Your task to perform on an android device: toggle sleep mode Image 0: 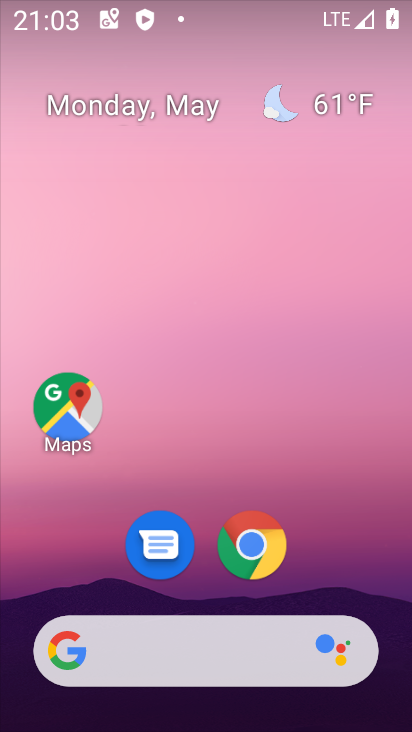
Step 0: drag from (200, 630) to (102, 3)
Your task to perform on an android device: toggle sleep mode Image 1: 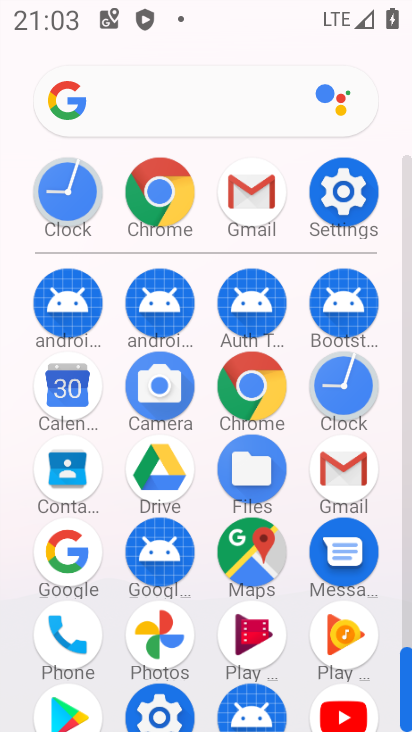
Step 1: click (359, 181)
Your task to perform on an android device: toggle sleep mode Image 2: 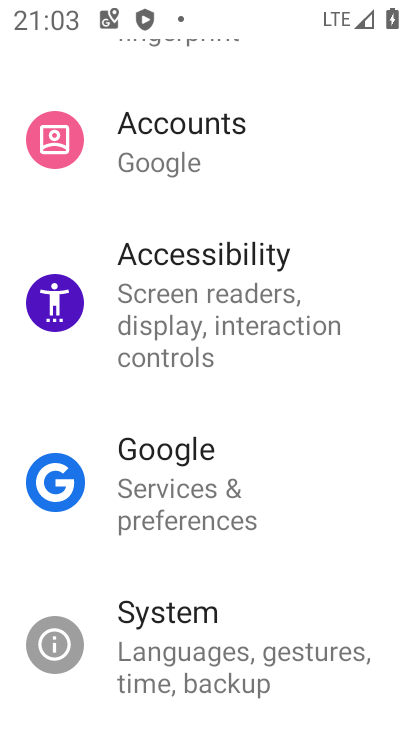
Step 2: drag from (165, 590) to (160, 121)
Your task to perform on an android device: toggle sleep mode Image 3: 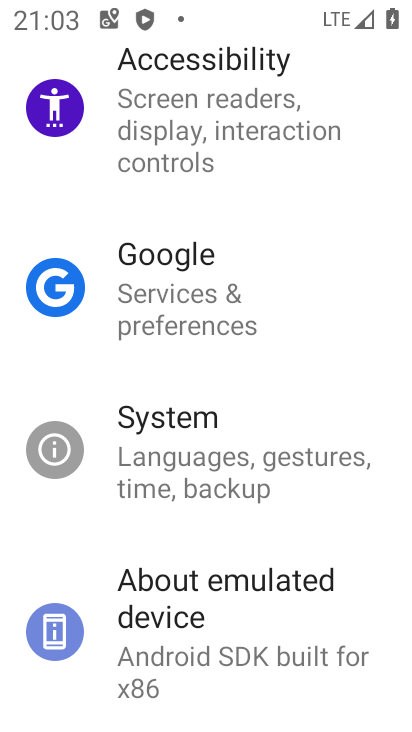
Step 3: drag from (153, 194) to (122, 719)
Your task to perform on an android device: toggle sleep mode Image 4: 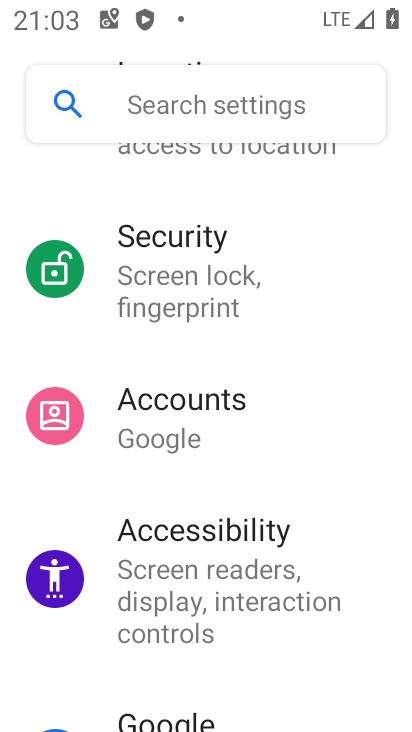
Step 4: drag from (169, 327) to (130, 713)
Your task to perform on an android device: toggle sleep mode Image 5: 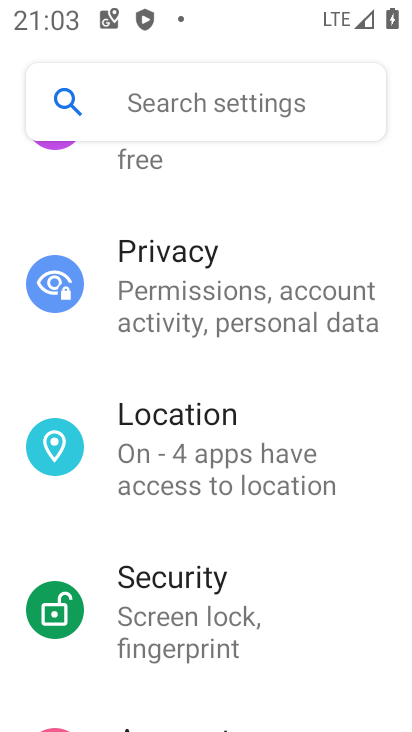
Step 5: drag from (210, 224) to (162, 719)
Your task to perform on an android device: toggle sleep mode Image 6: 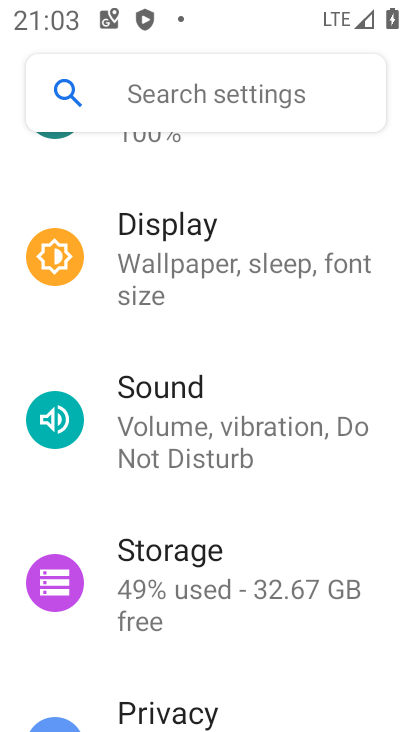
Step 6: drag from (178, 325) to (224, 479)
Your task to perform on an android device: toggle sleep mode Image 7: 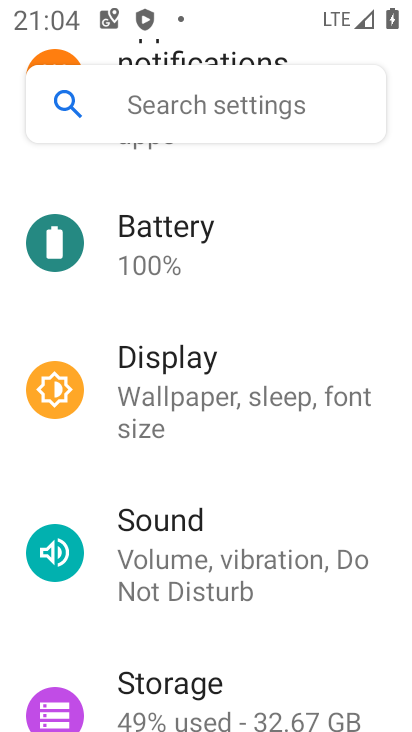
Step 7: click (169, 361)
Your task to perform on an android device: toggle sleep mode Image 8: 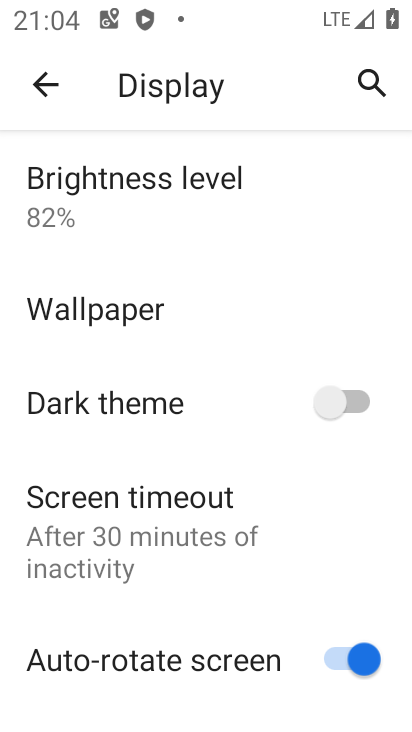
Step 8: drag from (198, 557) to (169, 118)
Your task to perform on an android device: toggle sleep mode Image 9: 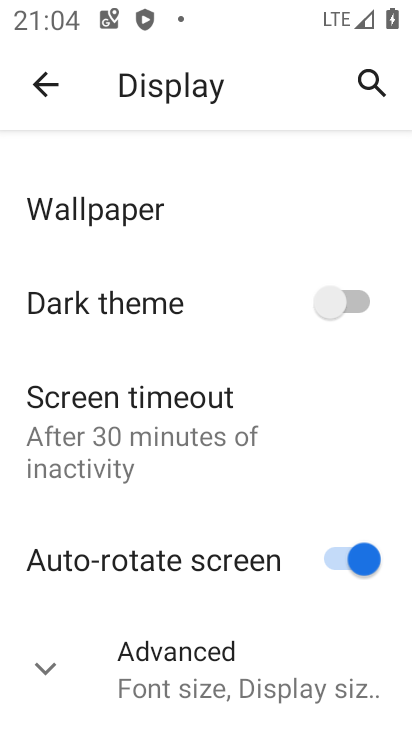
Step 9: click (138, 663)
Your task to perform on an android device: toggle sleep mode Image 10: 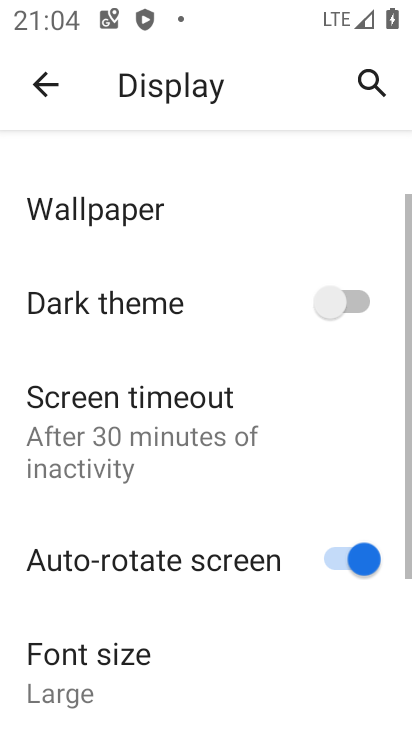
Step 10: task complete